Your task to perform on an android device: see sites visited before in the chrome app Image 0: 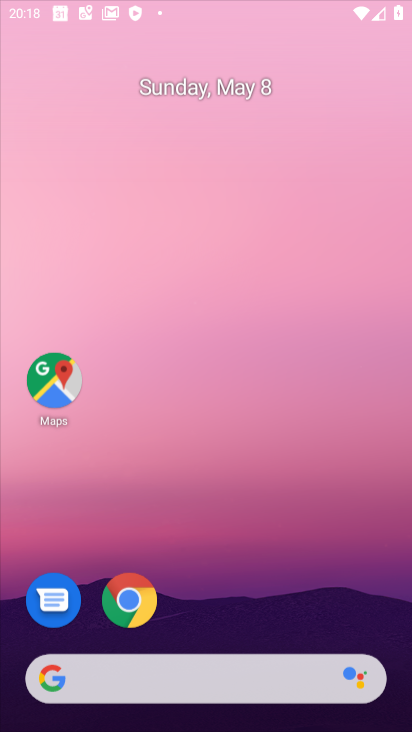
Step 0: drag from (238, 657) to (270, 301)
Your task to perform on an android device: see sites visited before in the chrome app Image 1: 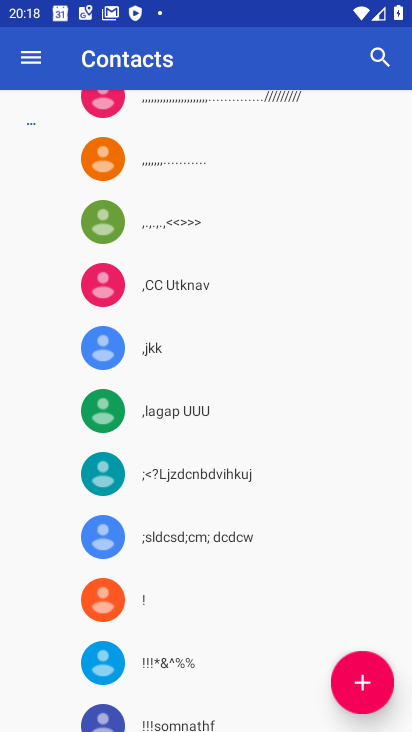
Step 1: press home button
Your task to perform on an android device: see sites visited before in the chrome app Image 2: 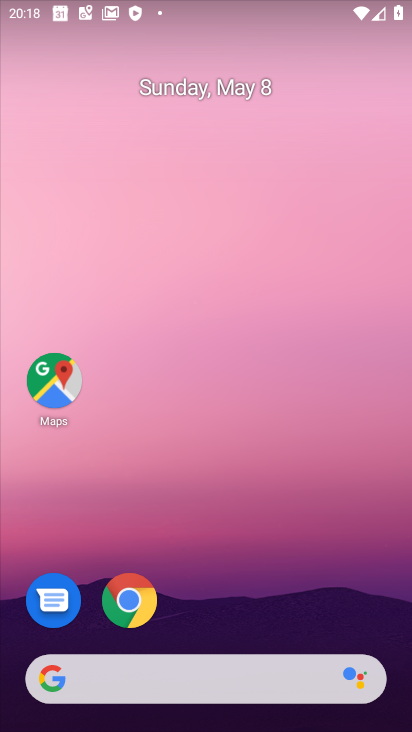
Step 2: drag from (230, 615) to (258, 125)
Your task to perform on an android device: see sites visited before in the chrome app Image 3: 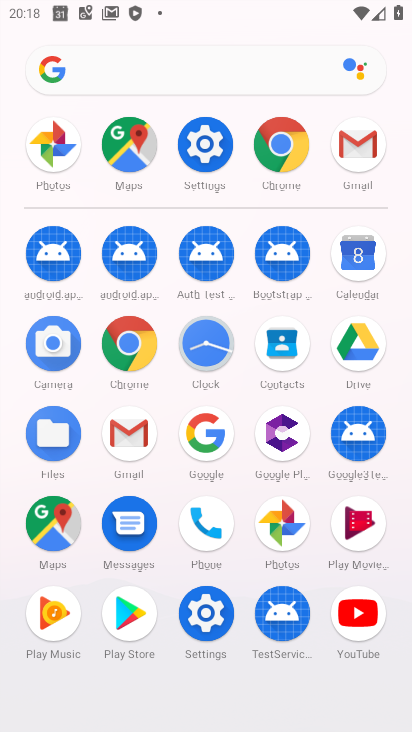
Step 3: click (279, 138)
Your task to perform on an android device: see sites visited before in the chrome app Image 4: 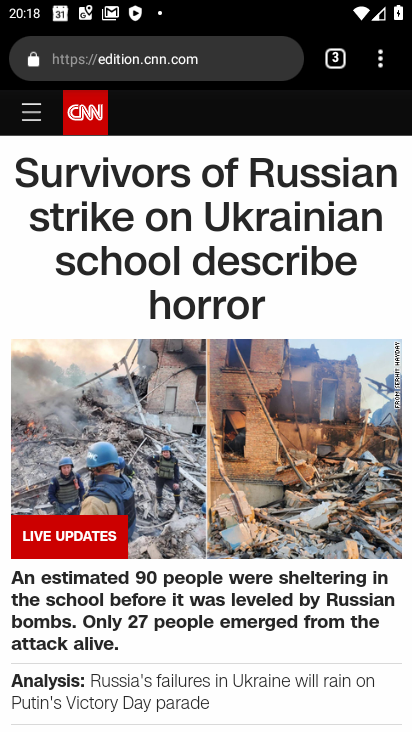
Step 4: click (370, 78)
Your task to perform on an android device: see sites visited before in the chrome app Image 5: 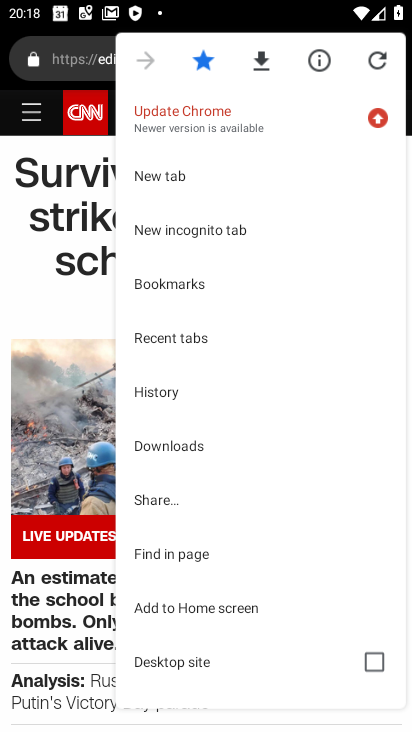
Step 5: drag from (182, 650) to (203, 592)
Your task to perform on an android device: see sites visited before in the chrome app Image 6: 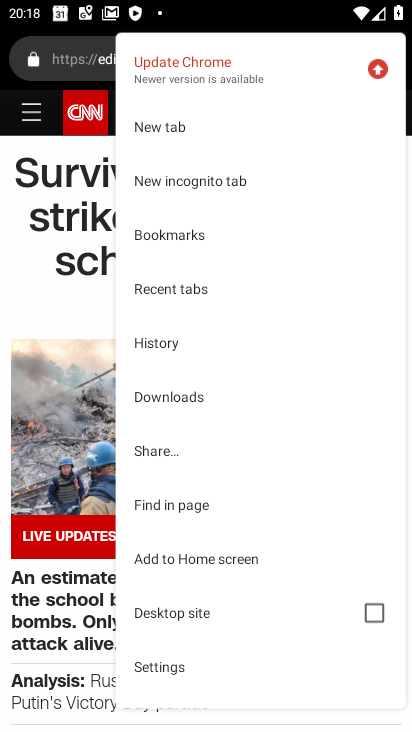
Step 6: click (182, 657)
Your task to perform on an android device: see sites visited before in the chrome app Image 7: 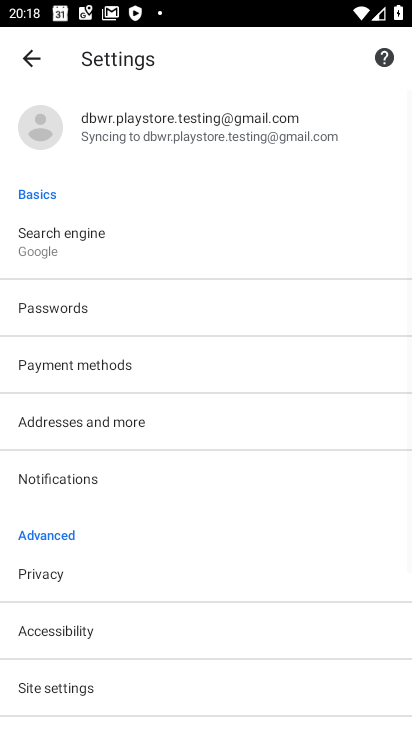
Step 7: drag from (141, 629) to (162, 460)
Your task to perform on an android device: see sites visited before in the chrome app Image 8: 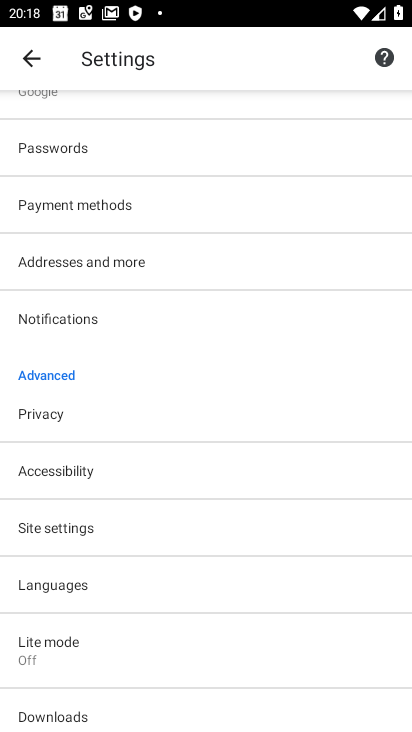
Step 8: click (111, 528)
Your task to perform on an android device: see sites visited before in the chrome app Image 9: 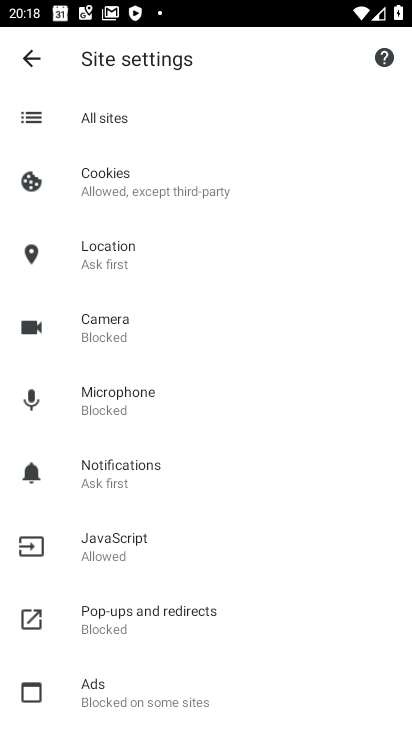
Step 9: click (149, 116)
Your task to perform on an android device: see sites visited before in the chrome app Image 10: 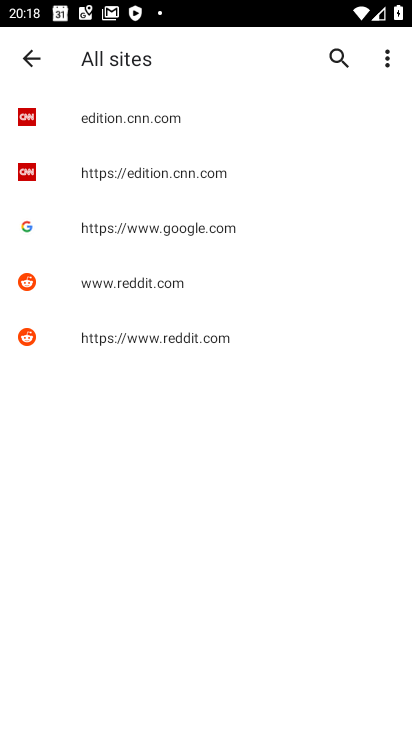
Step 10: task complete